Your task to perform on an android device: Open calendar and show me the fourth week of next month Image 0: 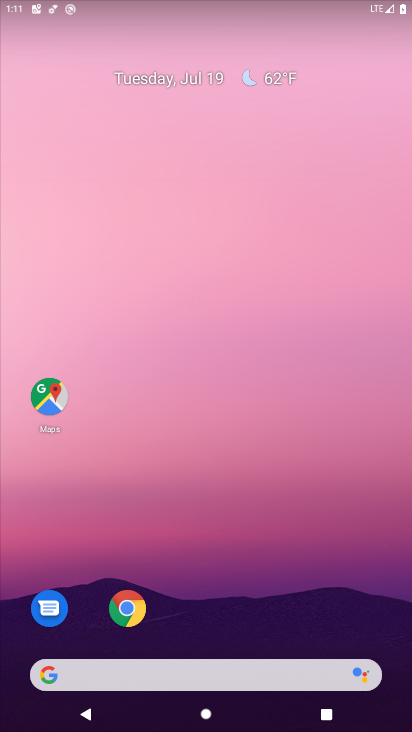
Step 0: press home button
Your task to perform on an android device: Open calendar and show me the fourth week of next month Image 1: 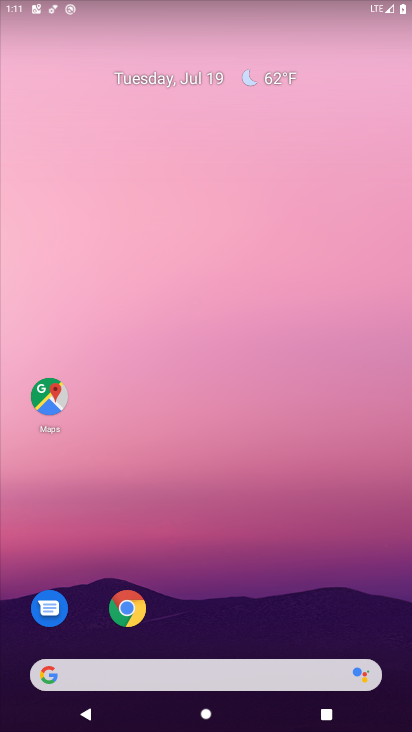
Step 1: drag from (217, 635) to (281, 34)
Your task to perform on an android device: Open calendar and show me the fourth week of next month Image 2: 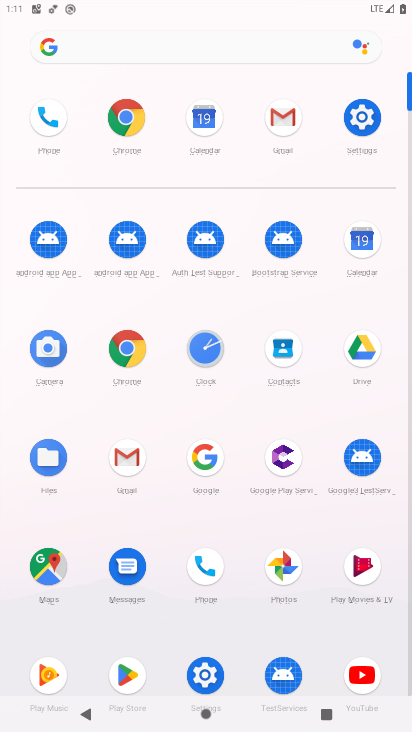
Step 2: click (361, 238)
Your task to perform on an android device: Open calendar and show me the fourth week of next month Image 3: 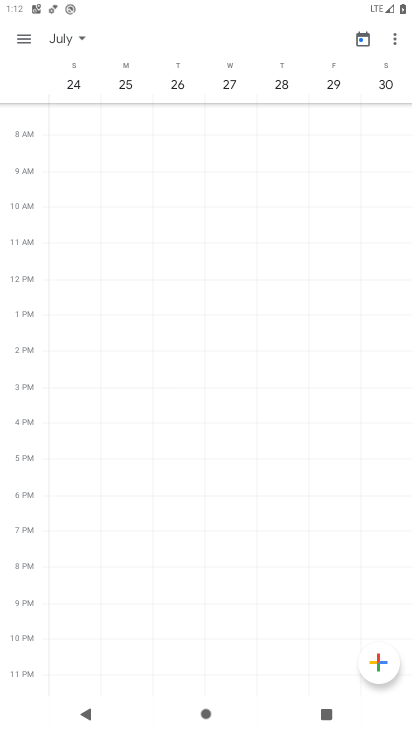
Step 3: drag from (378, 87) to (52, 89)
Your task to perform on an android device: Open calendar and show me the fourth week of next month Image 4: 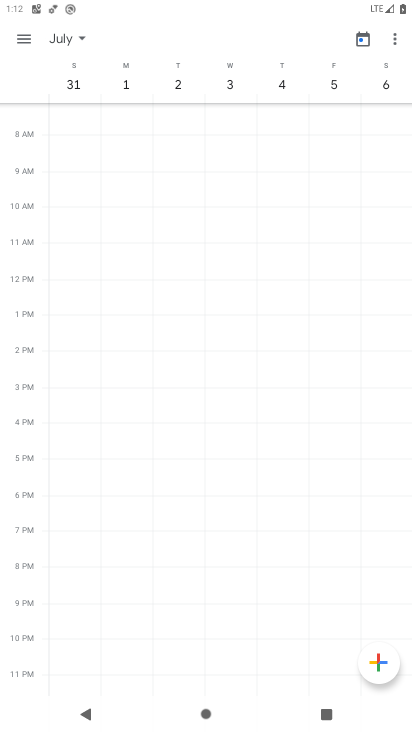
Step 4: drag from (345, 86) to (79, 87)
Your task to perform on an android device: Open calendar and show me the fourth week of next month Image 5: 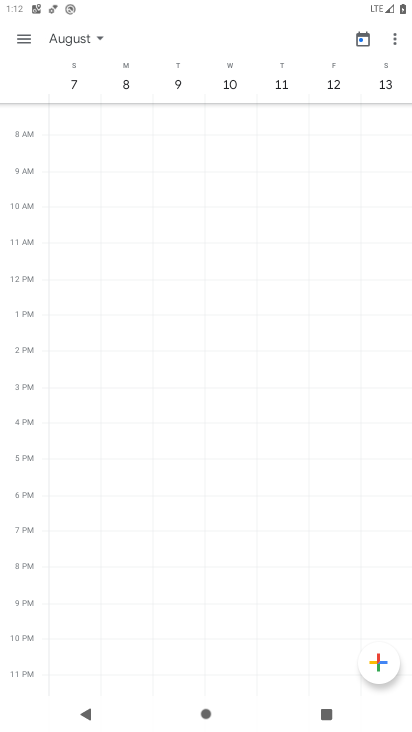
Step 5: drag from (374, 78) to (56, 82)
Your task to perform on an android device: Open calendar and show me the fourth week of next month Image 6: 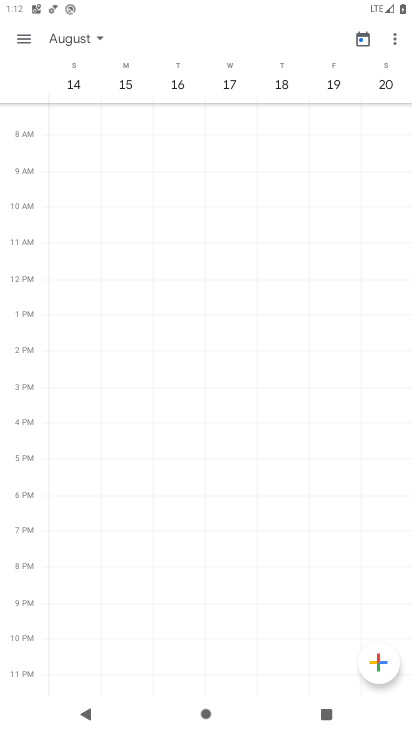
Step 6: drag from (379, 78) to (91, 75)
Your task to perform on an android device: Open calendar and show me the fourth week of next month Image 7: 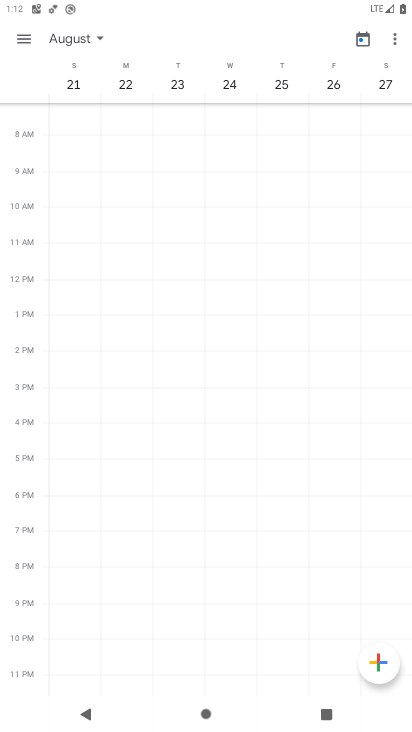
Step 7: click (76, 81)
Your task to perform on an android device: Open calendar and show me the fourth week of next month Image 8: 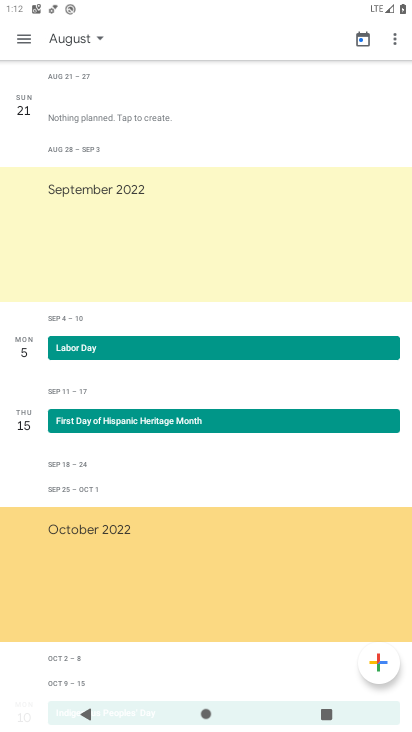
Step 8: task complete